Your task to perform on an android device: turn on improve location accuracy Image 0: 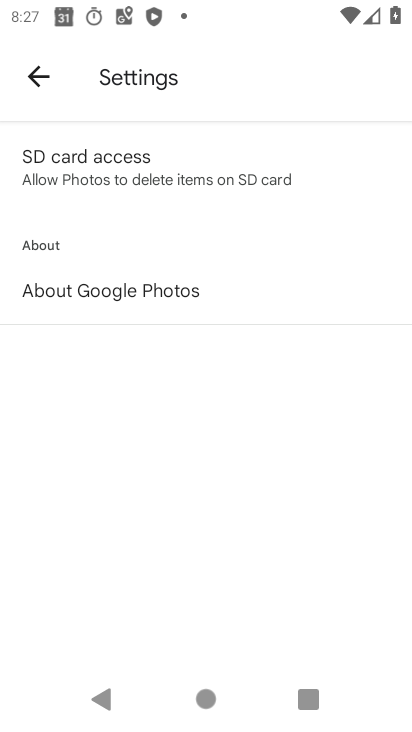
Step 0: press home button
Your task to perform on an android device: turn on improve location accuracy Image 1: 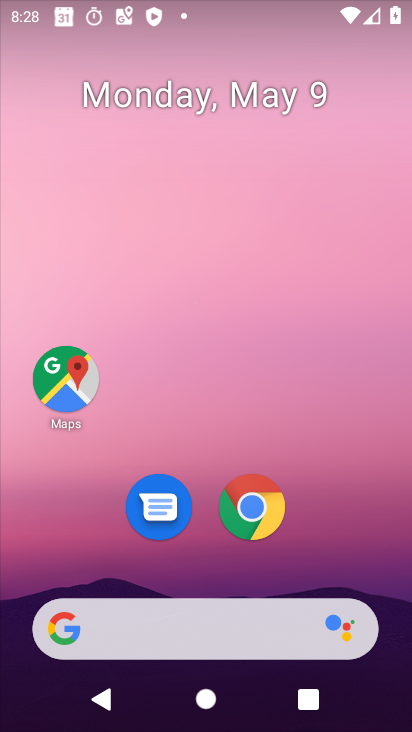
Step 1: drag from (280, 663) to (164, 188)
Your task to perform on an android device: turn on improve location accuracy Image 2: 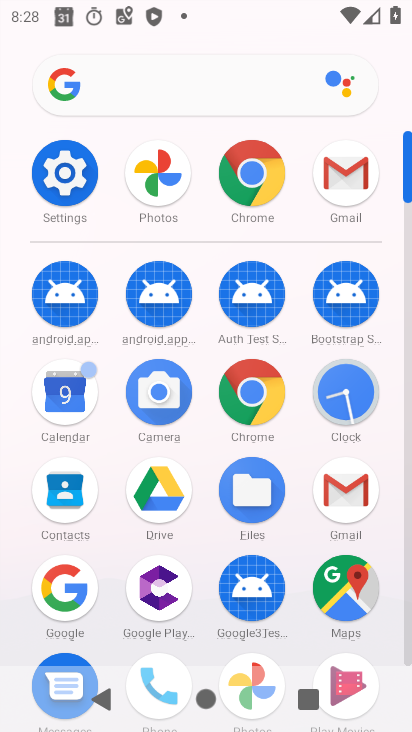
Step 2: click (45, 181)
Your task to perform on an android device: turn on improve location accuracy Image 3: 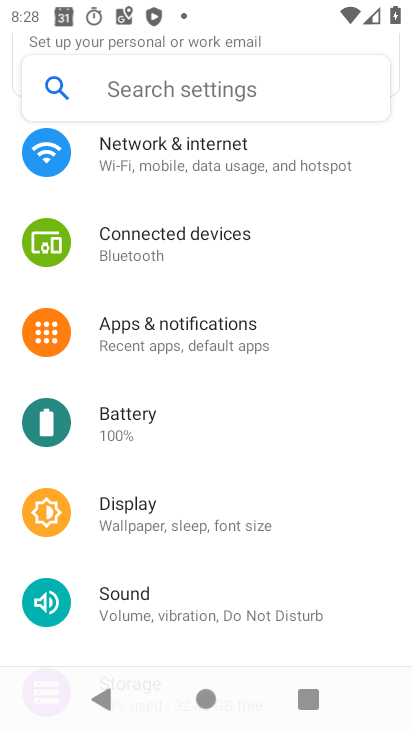
Step 3: drag from (139, 548) to (178, 399)
Your task to perform on an android device: turn on improve location accuracy Image 4: 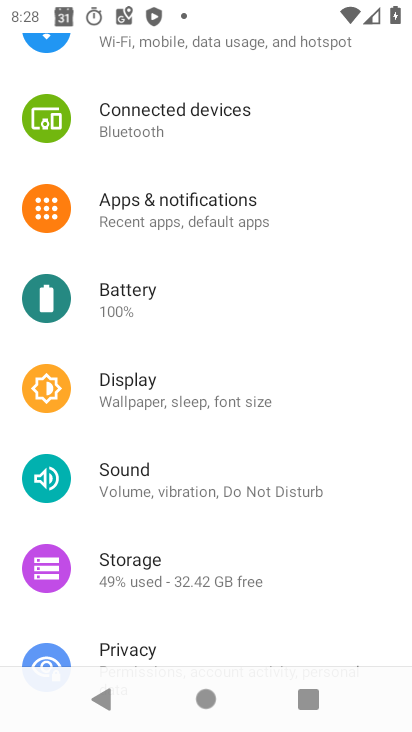
Step 4: drag from (162, 532) to (200, 331)
Your task to perform on an android device: turn on improve location accuracy Image 5: 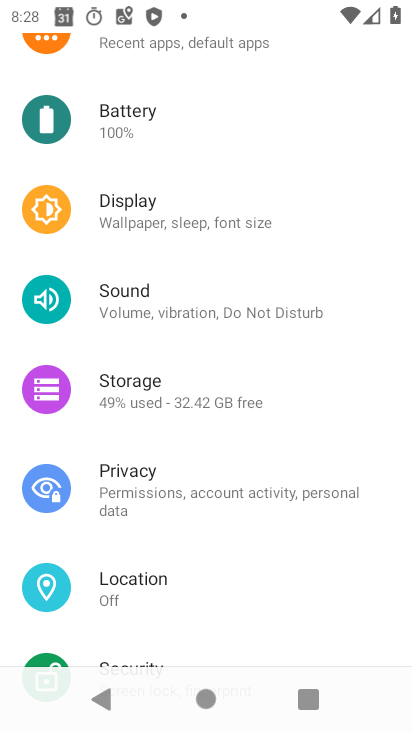
Step 5: click (135, 577)
Your task to perform on an android device: turn on improve location accuracy Image 6: 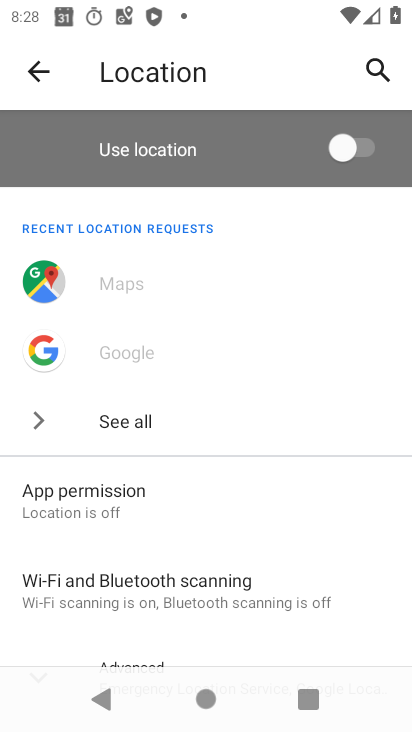
Step 6: drag from (130, 595) to (145, 461)
Your task to perform on an android device: turn on improve location accuracy Image 7: 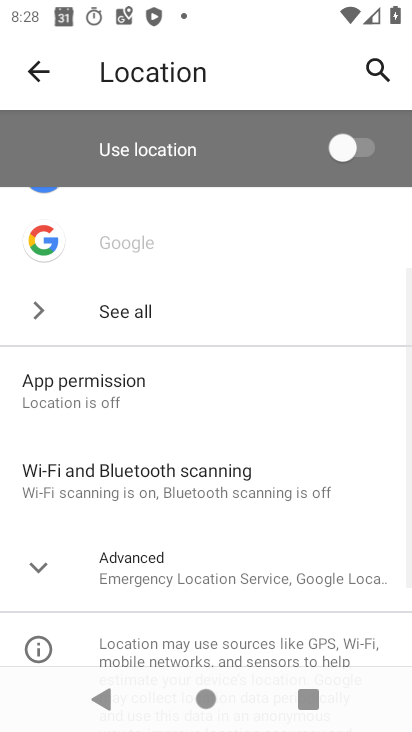
Step 7: click (49, 573)
Your task to perform on an android device: turn on improve location accuracy Image 8: 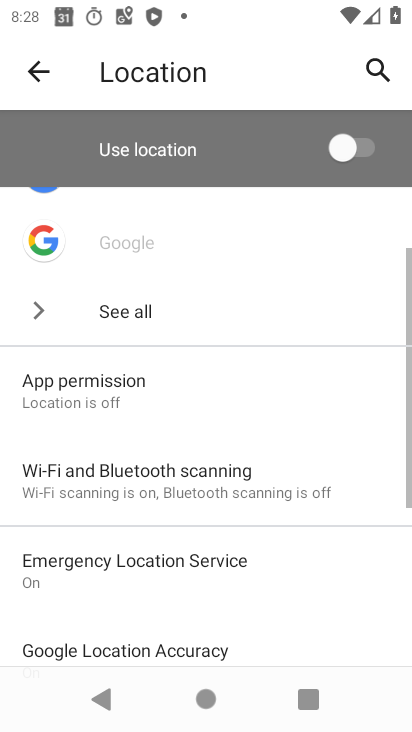
Step 8: drag from (110, 539) to (188, 450)
Your task to perform on an android device: turn on improve location accuracy Image 9: 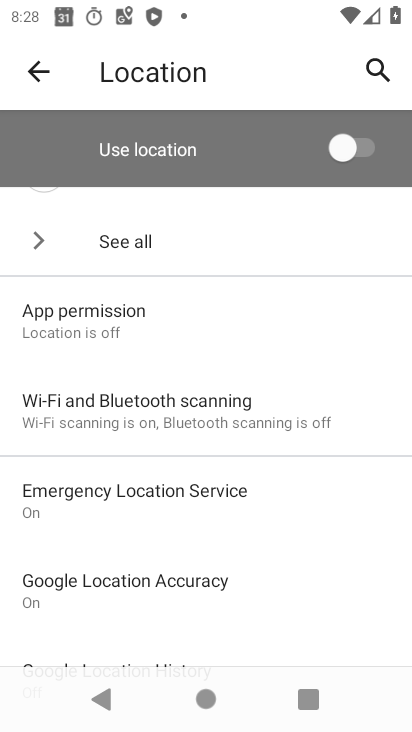
Step 9: click (120, 581)
Your task to perform on an android device: turn on improve location accuracy Image 10: 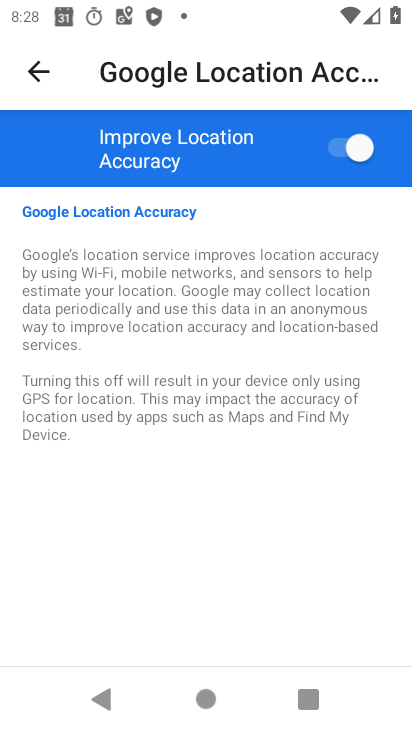
Step 10: click (331, 157)
Your task to perform on an android device: turn on improve location accuracy Image 11: 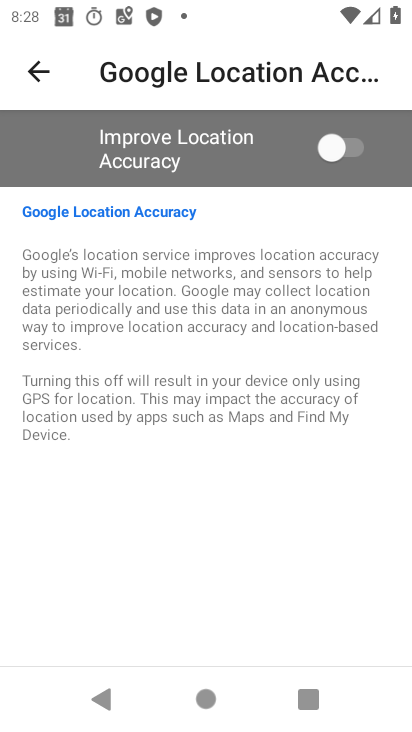
Step 11: click (328, 161)
Your task to perform on an android device: turn on improve location accuracy Image 12: 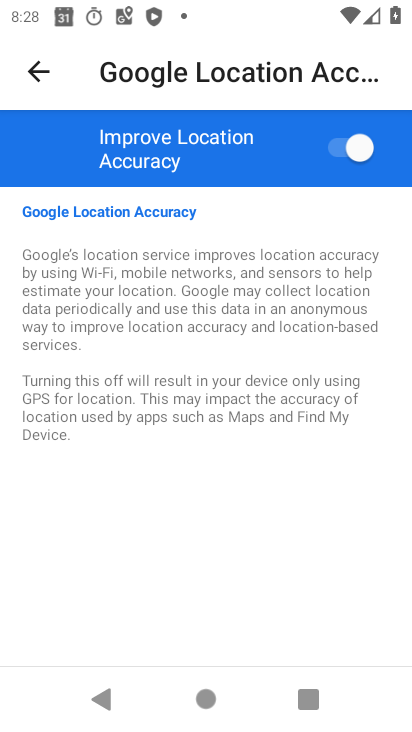
Step 12: task complete